Your task to perform on an android device: turn on bluetooth scan Image 0: 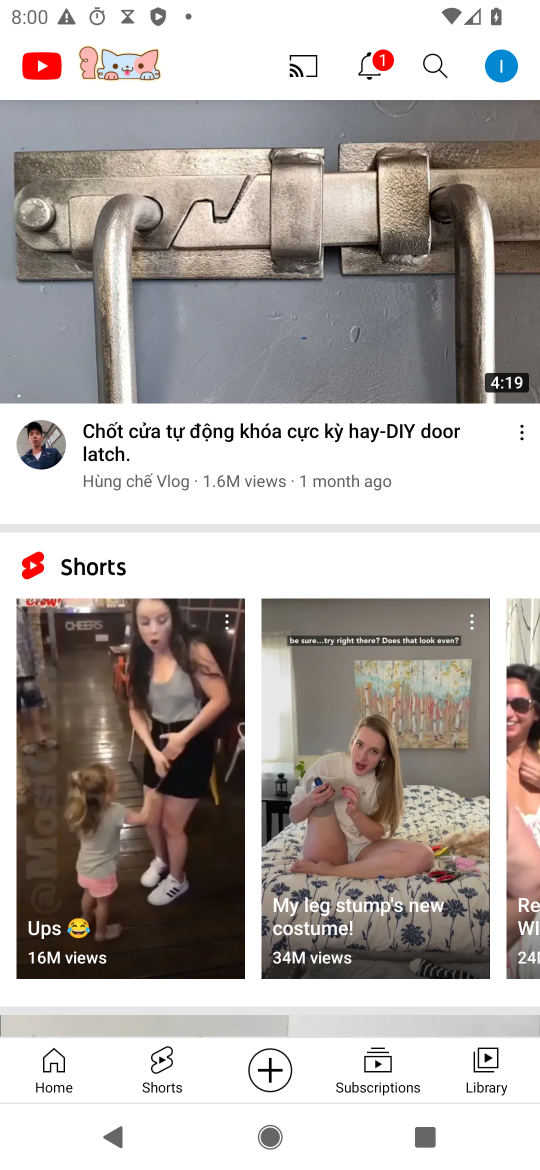
Step 0: press home button
Your task to perform on an android device: turn on bluetooth scan Image 1: 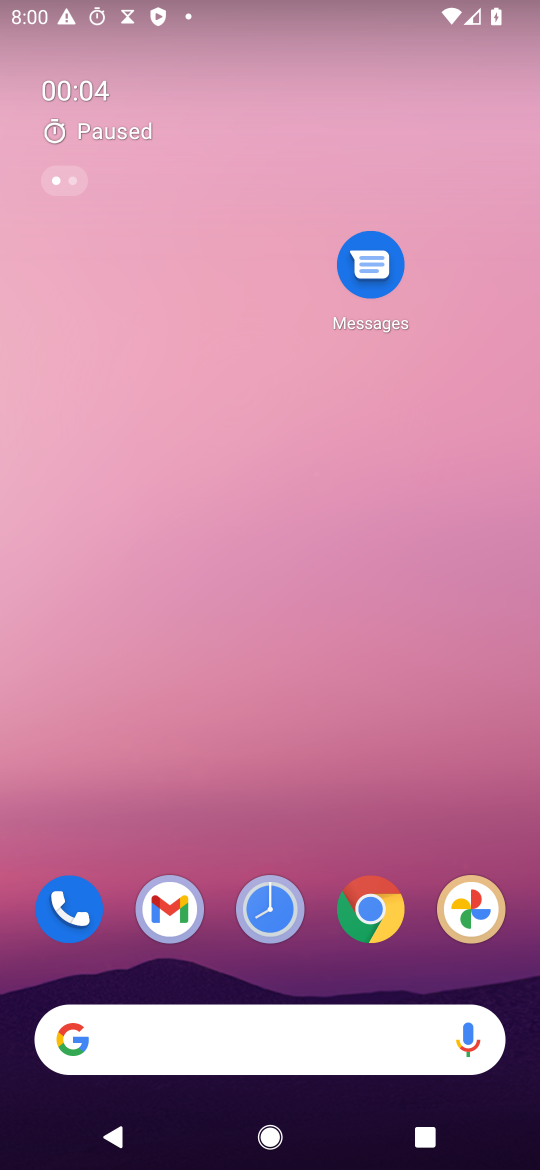
Step 1: drag from (254, 1051) to (386, 316)
Your task to perform on an android device: turn on bluetooth scan Image 2: 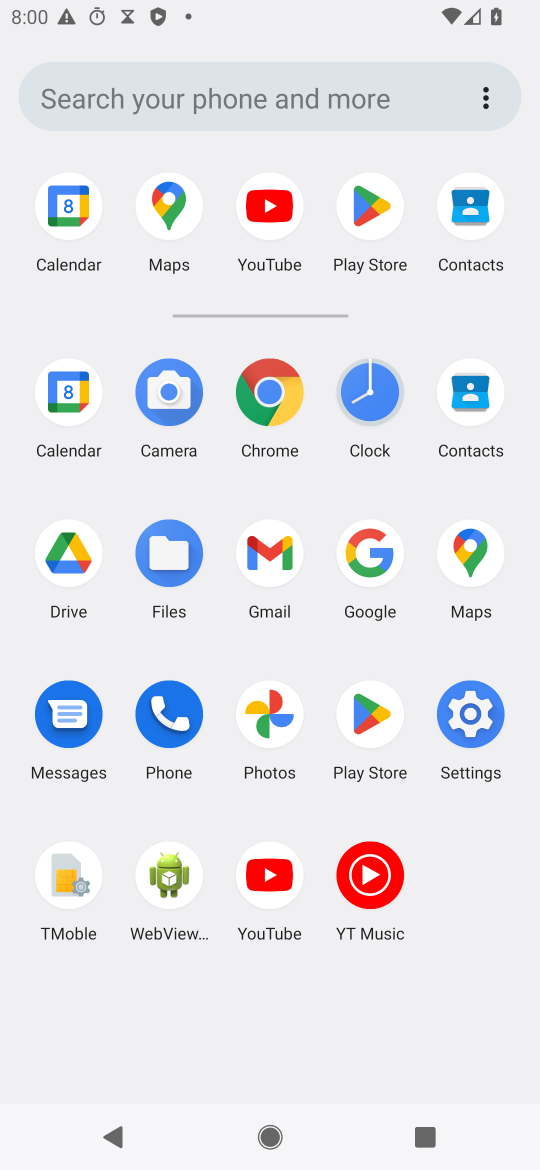
Step 2: click (462, 716)
Your task to perform on an android device: turn on bluetooth scan Image 3: 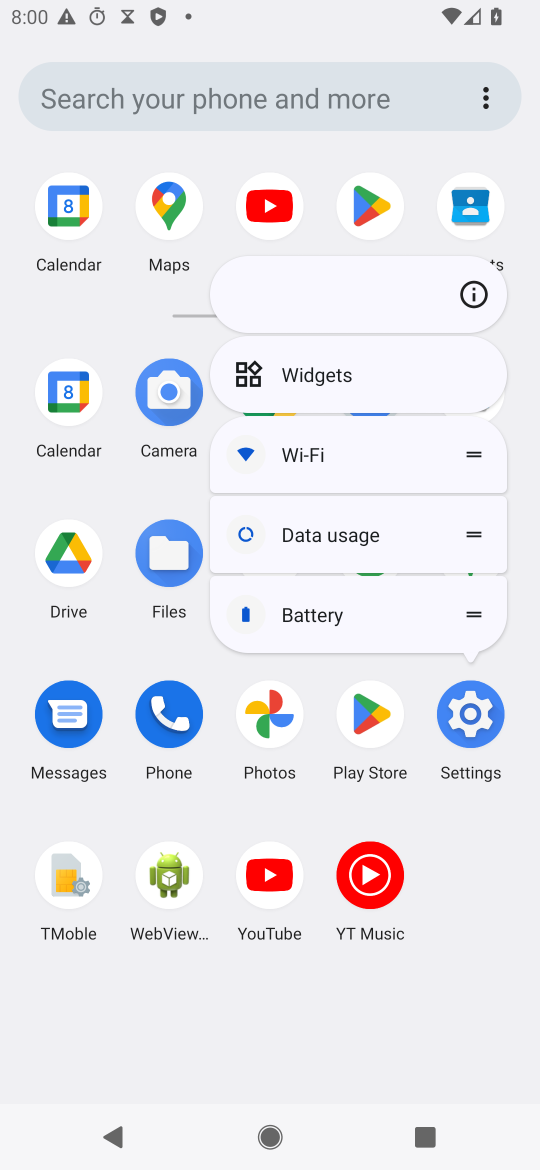
Step 3: click (478, 716)
Your task to perform on an android device: turn on bluetooth scan Image 4: 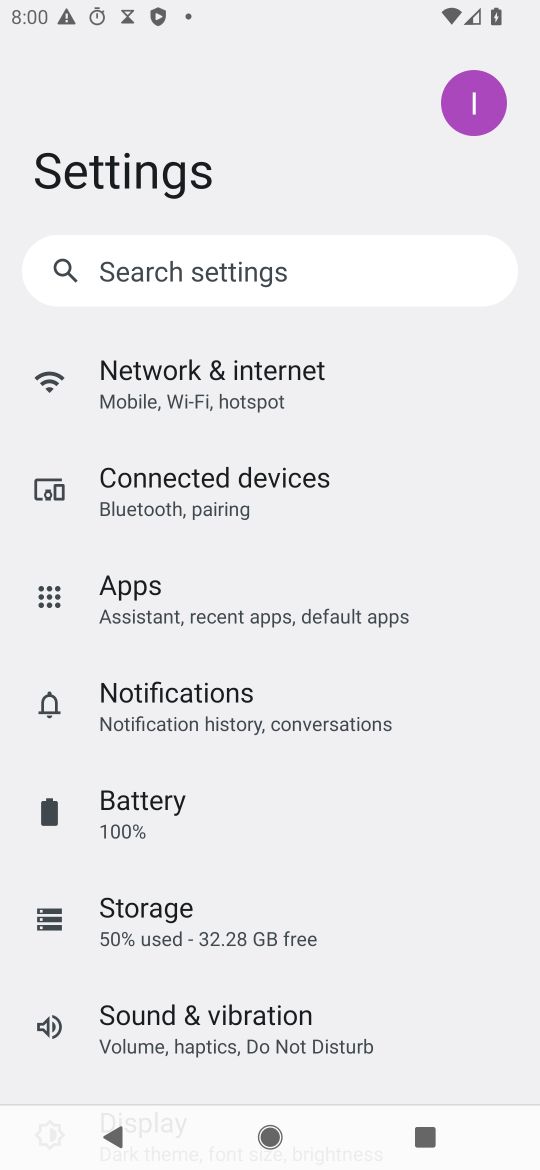
Step 4: drag from (377, 948) to (424, 440)
Your task to perform on an android device: turn on bluetooth scan Image 5: 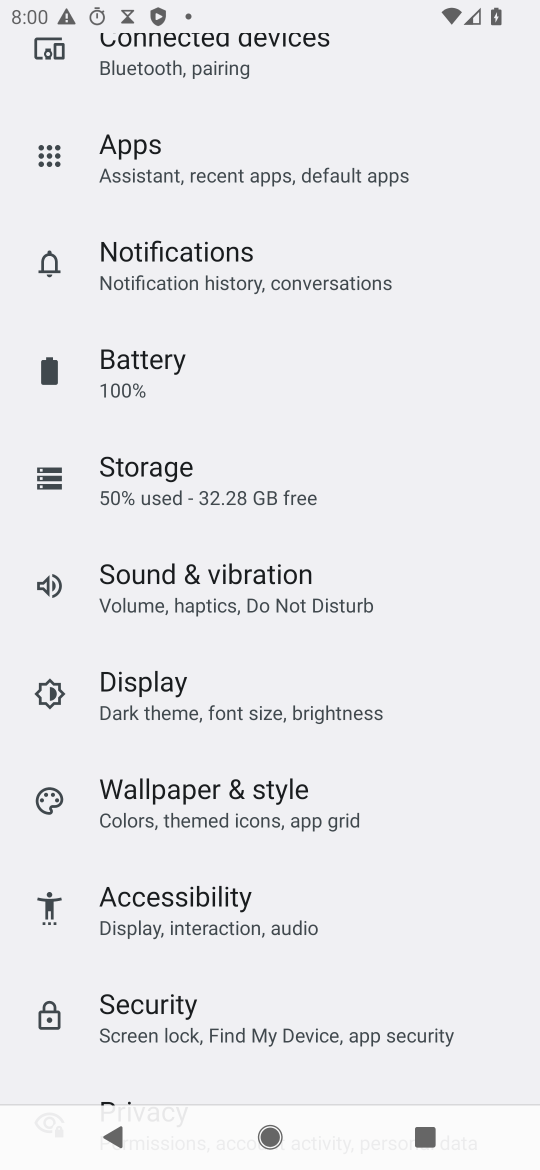
Step 5: drag from (382, 939) to (381, 407)
Your task to perform on an android device: turn on bluetooth scan Image 6: 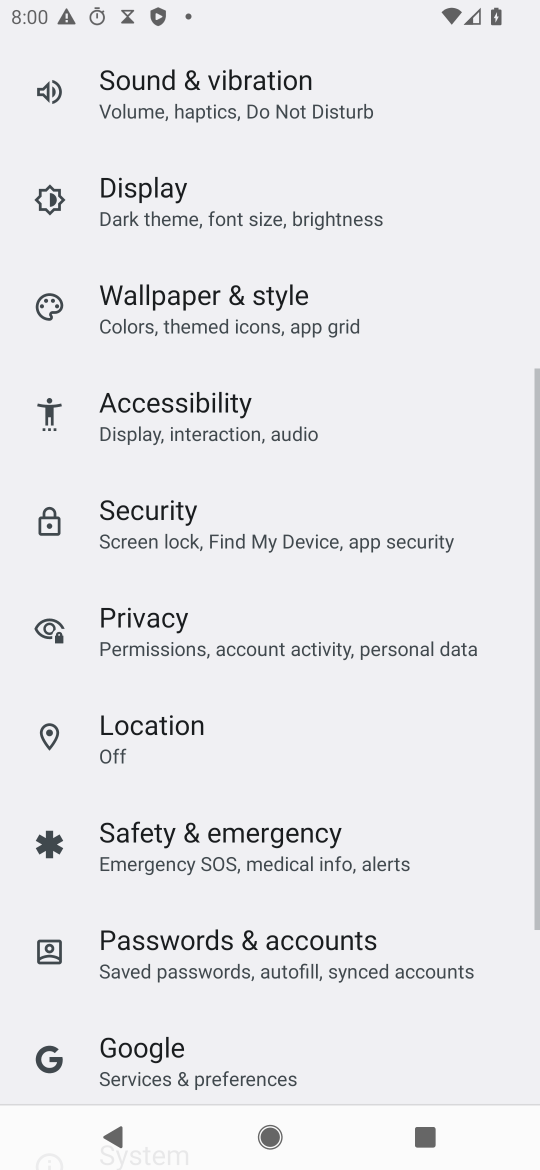
Step 6: click (166, 743)
Your task to perform on an android device: turn on bluetooth scan Image 7: 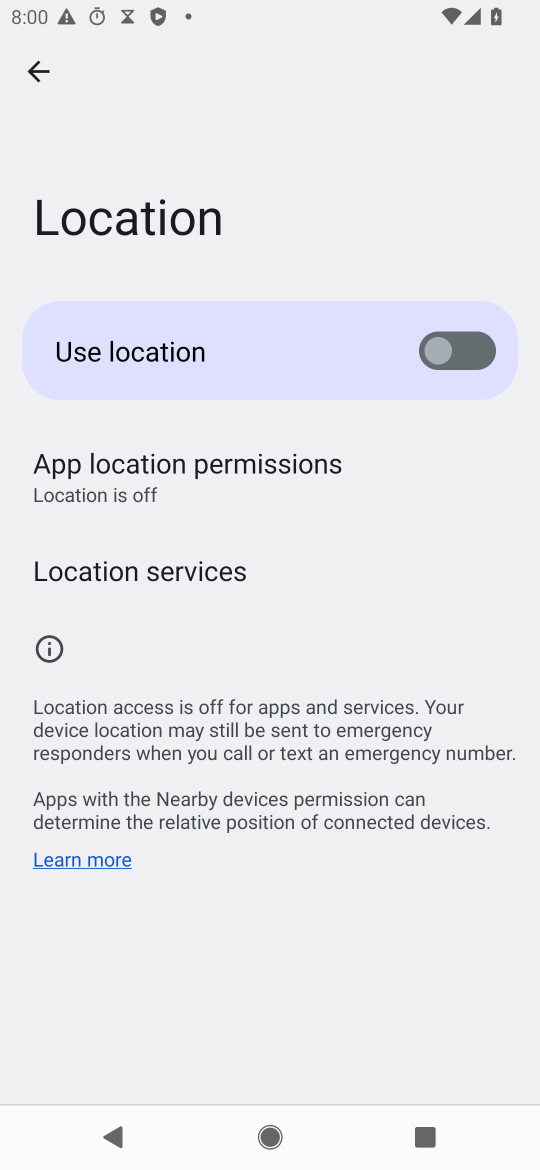
Step 7: click (193, 578)
Your task to perform on an android device: turn on bluetooth scan Image 8: 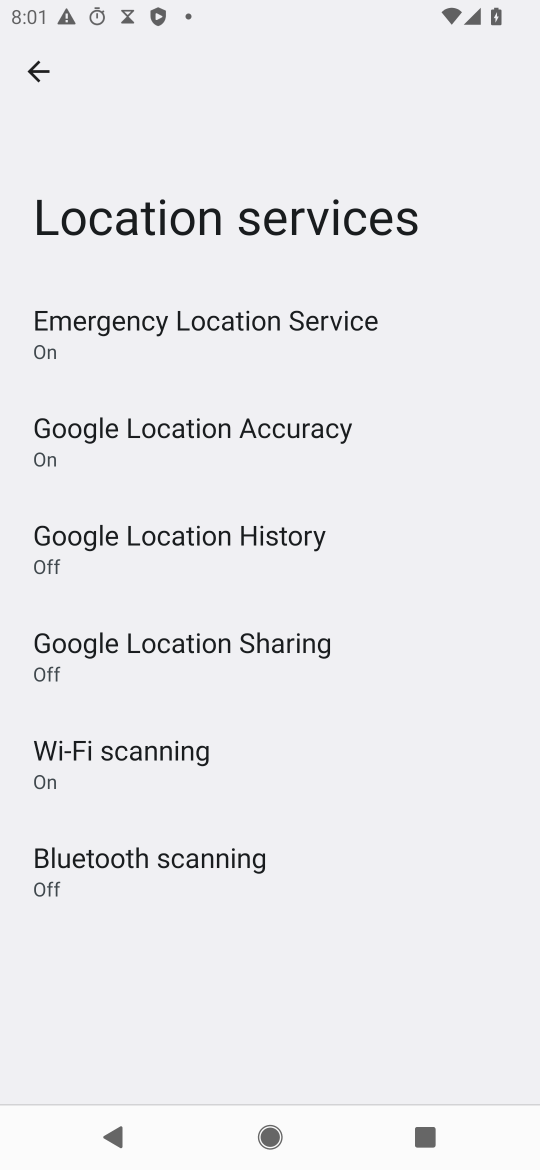
Step 8: click (35, 68)
Your task to perform on an android device: turn on bluetooth scan Image 9: 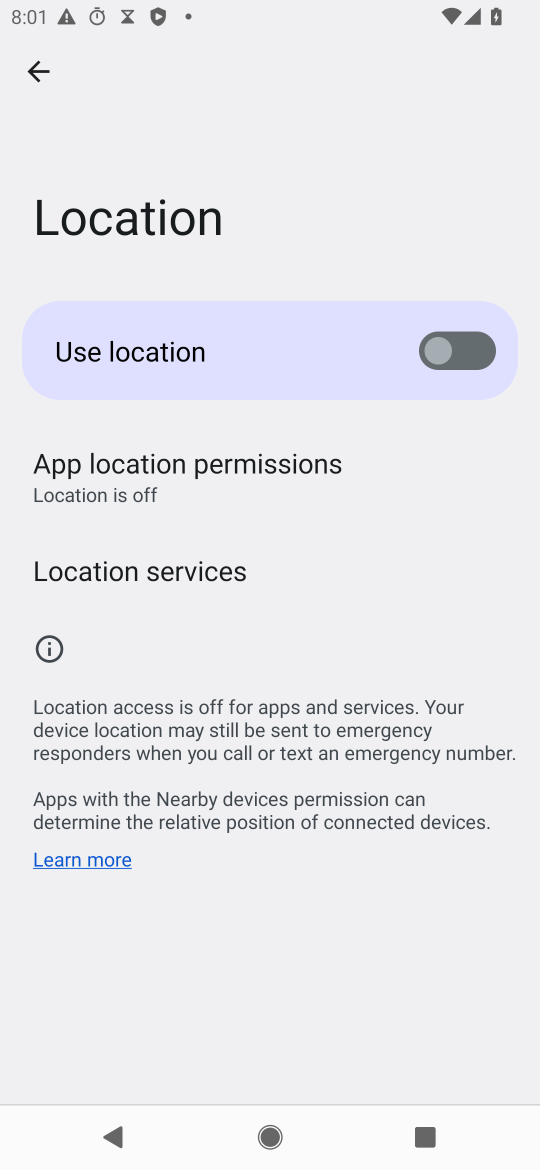
Step 9: click (182, 567)
Your task to perform on an android device: turn on bluetooth scan Image 10: 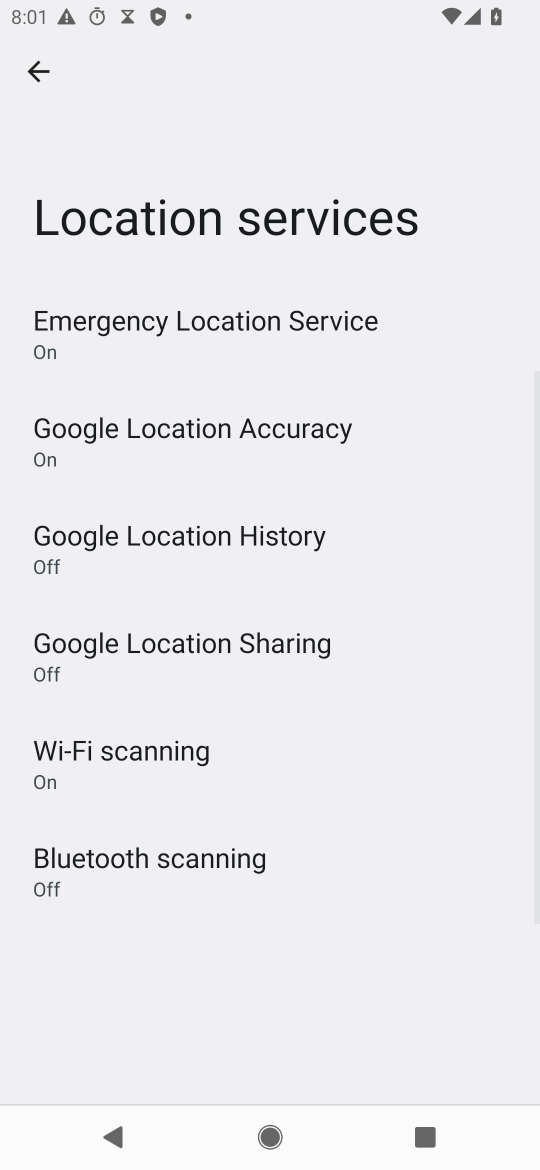
Step 10: click (225, 853)
Your task to perform on an android device: turn on bluetooth scan Image 11: 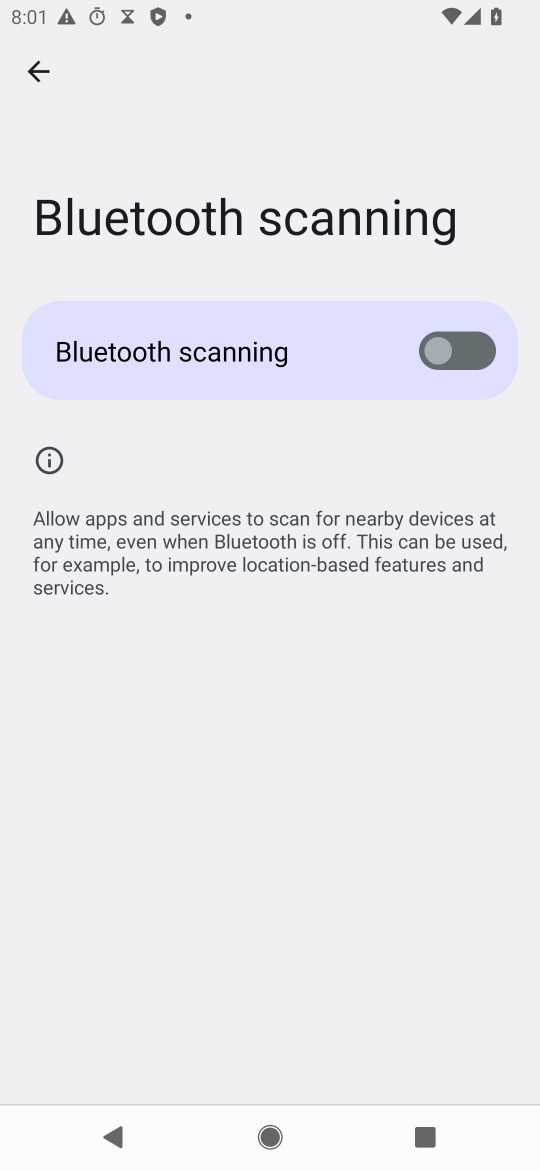
Step 11: click (479, 350)
Your task to perform on an android device: turn on bluetooth scan Image 12: 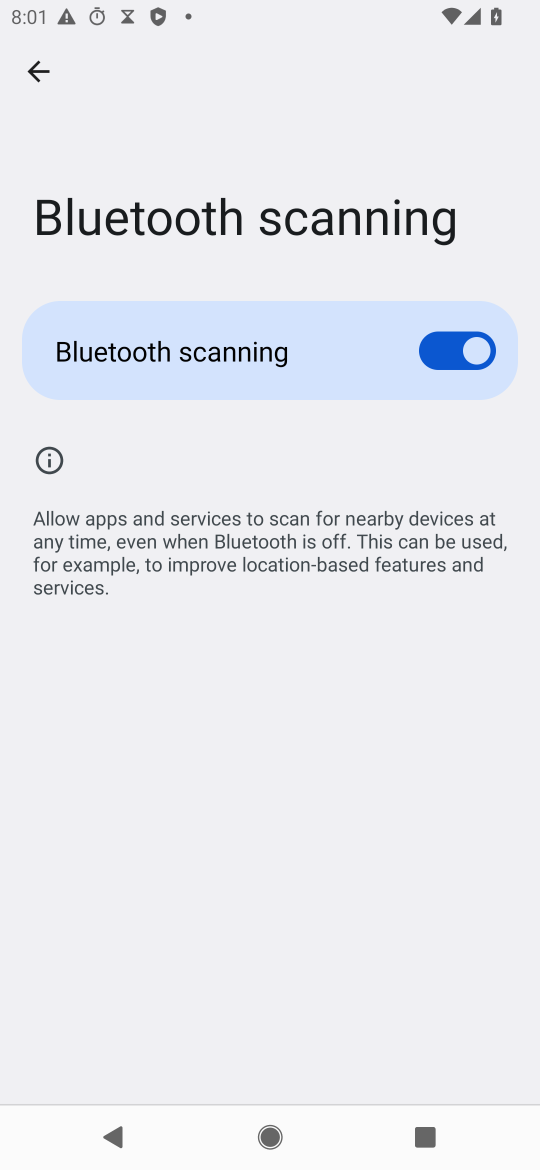
Step 12: task complete